Your task to perform on an android device: search for starred emails in the gmail app Image 0: 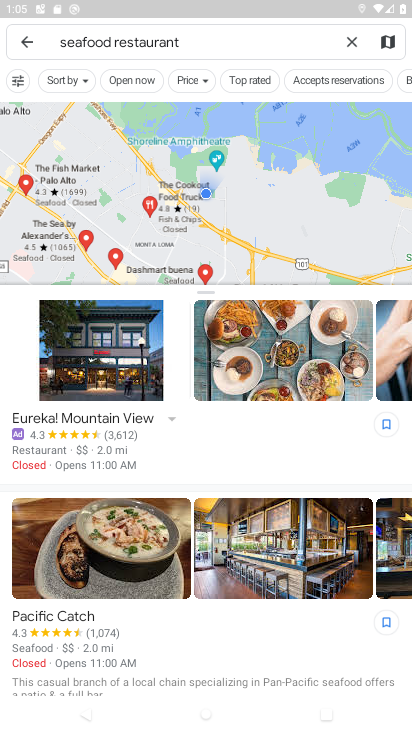
Step 0: press home button
Your task to perform on an android device: search for starred emails in the gmail app Image 1: 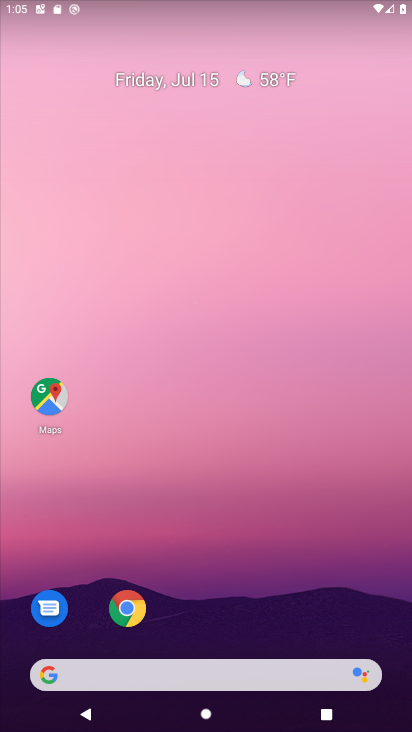
Step 1: drag from (204, 646) to (330, 207)
Your task to perform on an android device: search for starred emails in the gmail app Image 2: 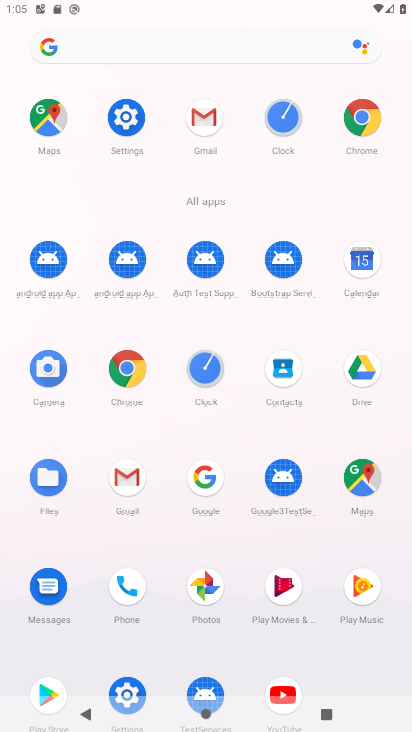
Step 2: click (148, 491)
Your task to perform on an android device: search for starred emails in the gmail app Image 3: 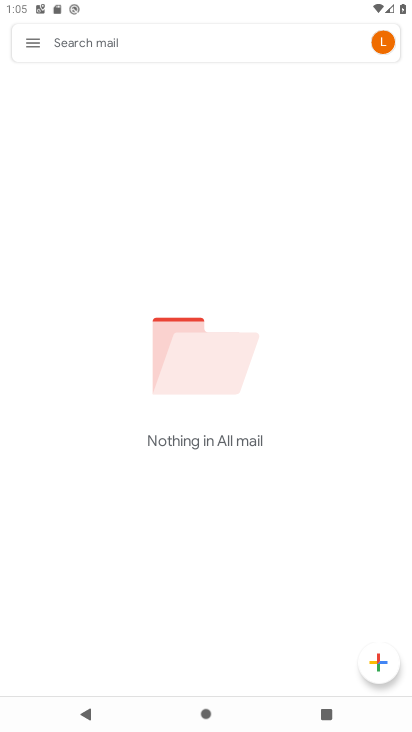
Step 3: click (37, 34)
Your task to perform on an android device: search for starred emails in the gmail app Image 4: 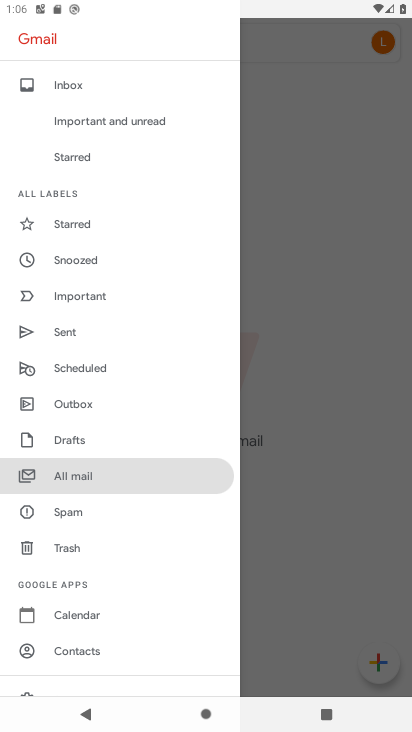
Step 4: click (102, 224)
Your task to perform on an android device: search for starred emails in the gmail app Image 5: 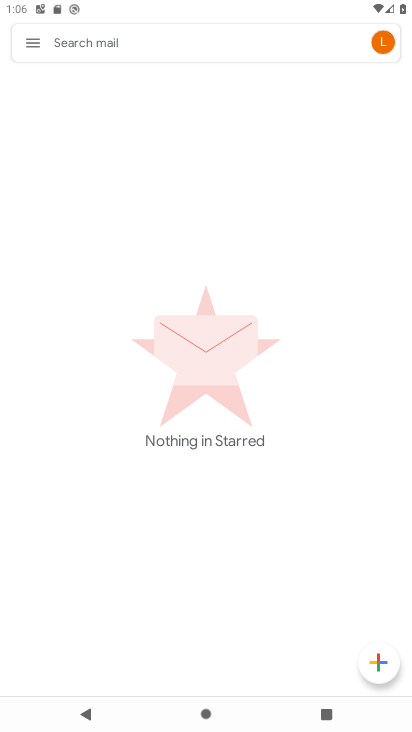
Step 5: task complete